Your task to perform on an android device: turn on wifi Image 0: 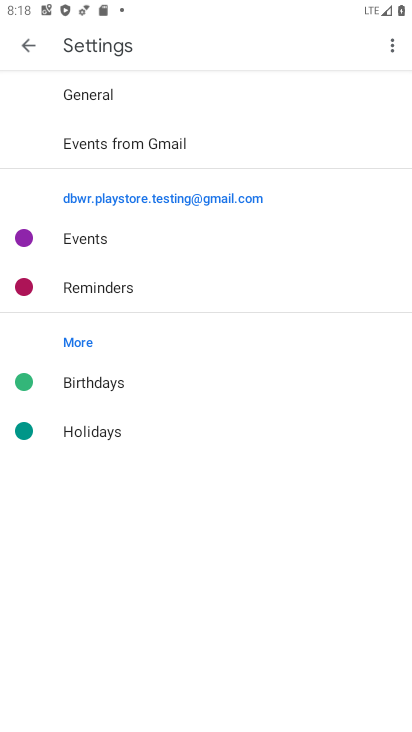
Step 0: press home button
Your task to perform on an android device: turn on wifi Image 1: 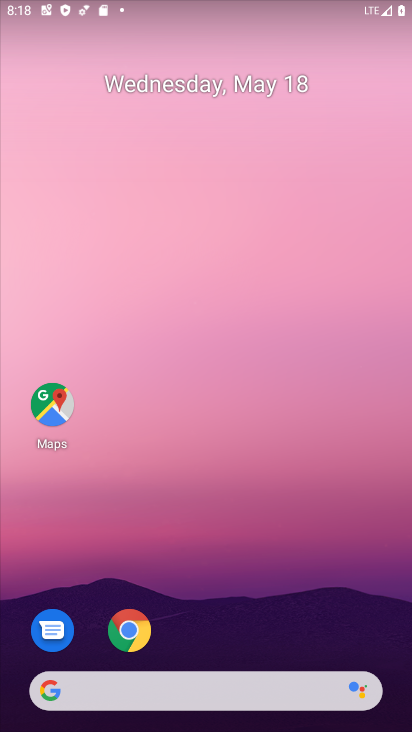
Step 1: drag from (167, 685) to (359, 73)
Your task to perform on an android device: turn on wifi Image 2: 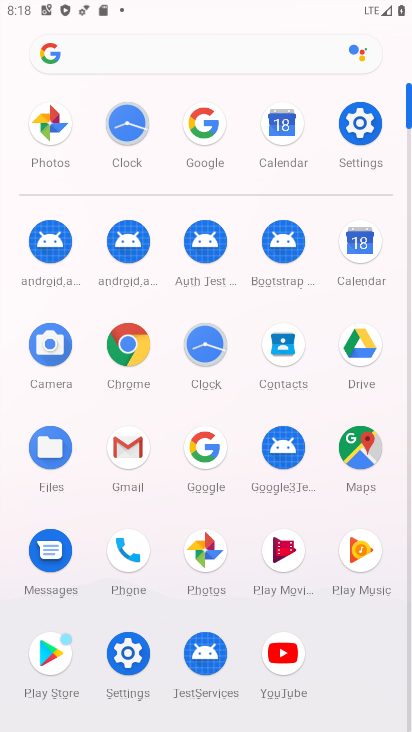
Step 2: click (368, 133)
Your task to perform on an android device: turn on wifi Image 3: 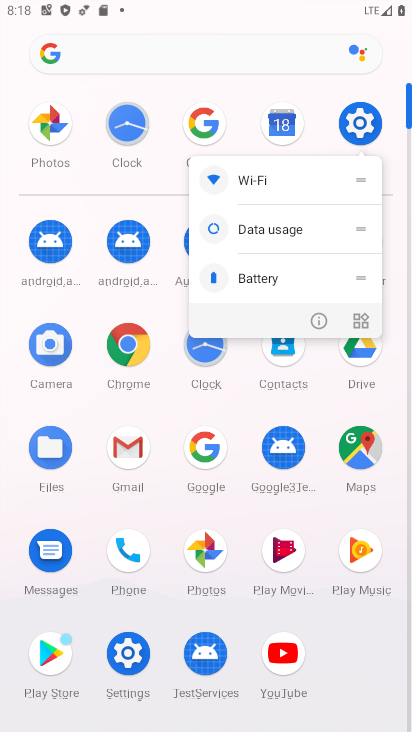
Step 3: click (370, 131)
Your task to perform on an android device: turn on wifi Image 4: 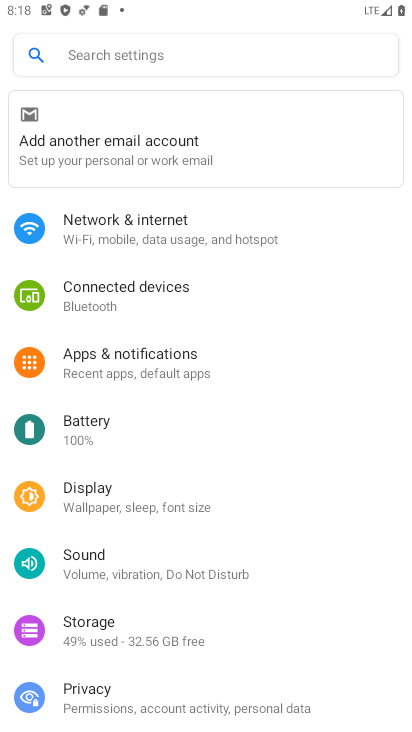
Step 4: click (187, 233)
Your task to perform on an android device: turn on wifi Image 5: 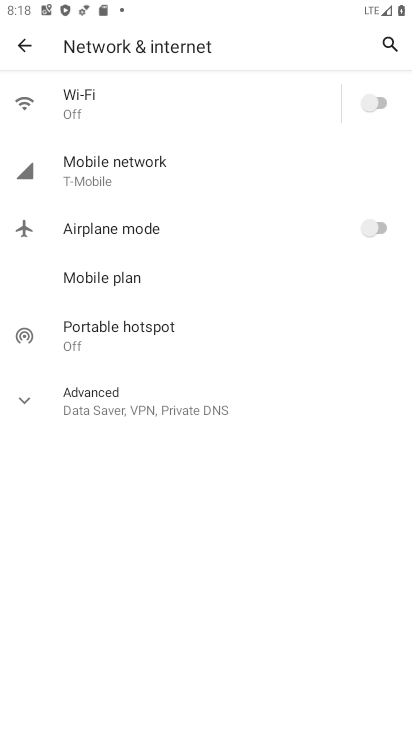
Step 5: click (383, 98)
Your task to perform on an android device: turn on wifi Image 6: 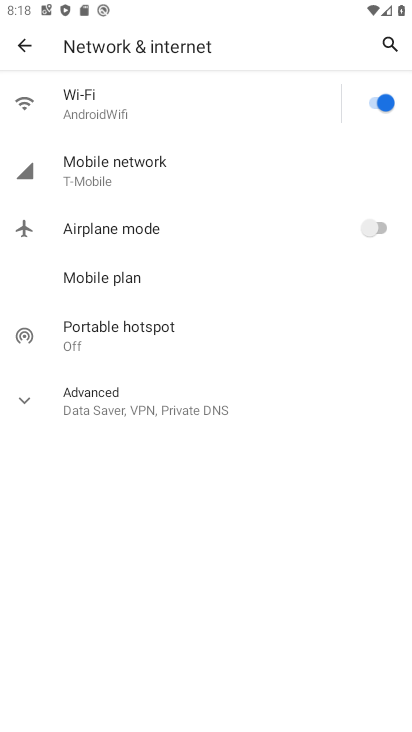
Step 6: task complete